Your task to perform on an android device: turn off picture-in-picture Image 0: 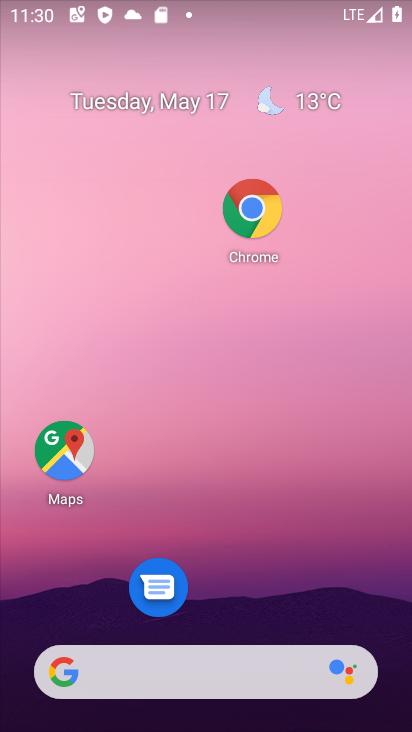
Step 0: drag from (280, 580) to (334, 43)
Your task to perform on an android device: turn off picture-in-picture Image 1: 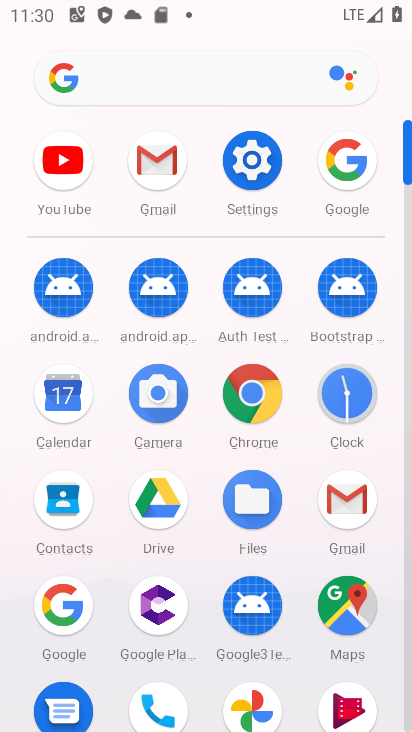
Step 1: click (255, 180)
Your task to perform on an android device: turn off picture-in-picture Image 2: 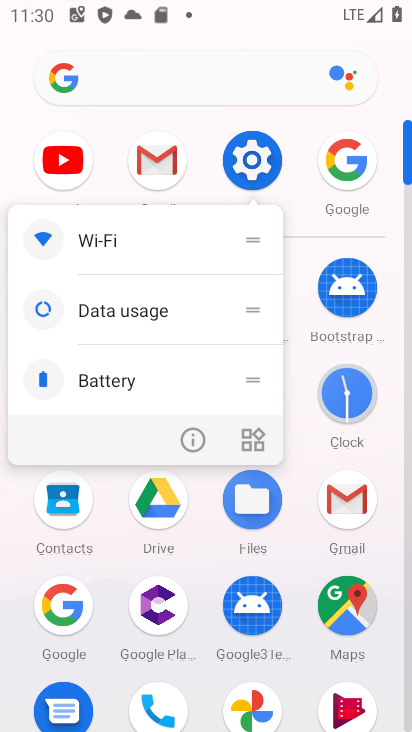
Step 2: click (254, 179)
Your task to perform on an android device: turn off picture-in-picture Image 3: 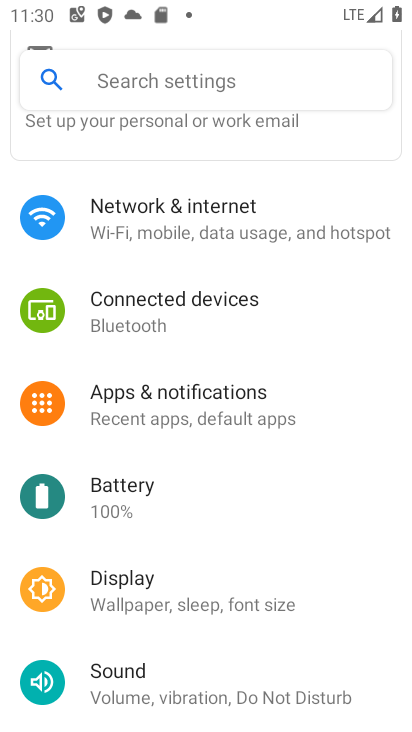
Step 3: task complete